Your task to perform on an android device: delete the emails in spam in the gmail app Image 0: 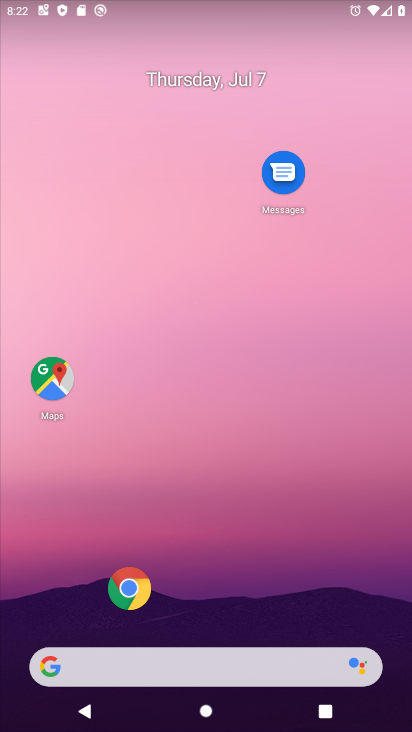
Step 0: drag from (31, 694) to (244, 90)
Your task to perform on an android device: delete the emails in spam in the gmail app Image 1: 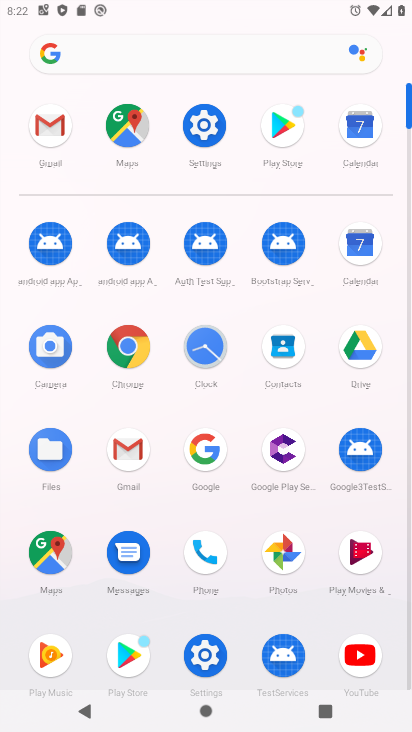
Step 1: click (113, 443)
Your task to perform on an android device: delete the emails in spam in the gmail app Image 2: 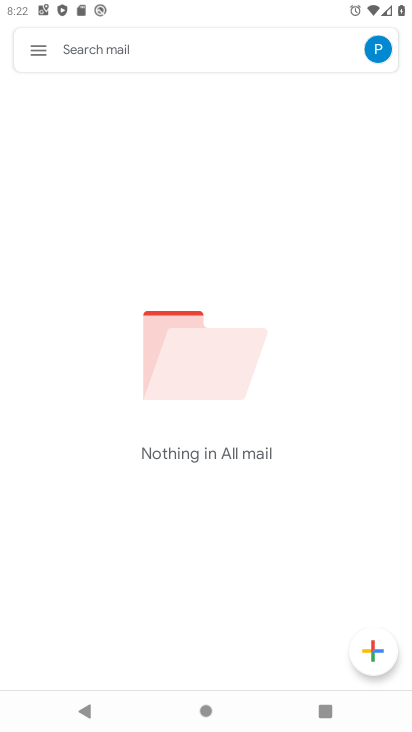
Step 2: click (49, 45)
Your task to perform on an android device: delete the emails in spam in the gmail app Image 3: 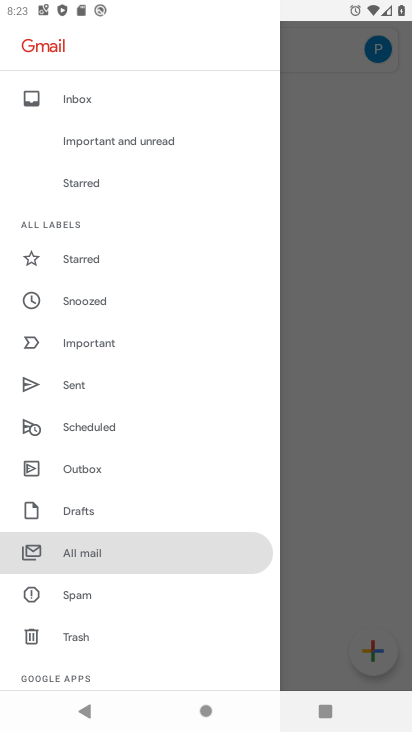
Step 3: click (91, 597)
Your task to perform on an android device: delete the emails in spam in the gmail app Image 4: 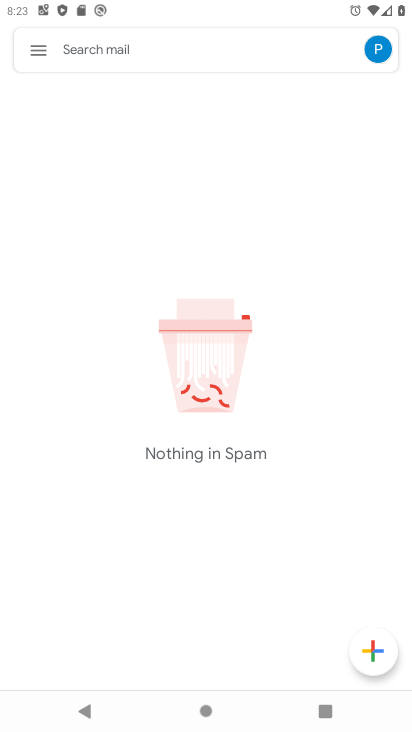
Step 4: task complete